Your task to perform on an android device: Go to eBay Image 0: 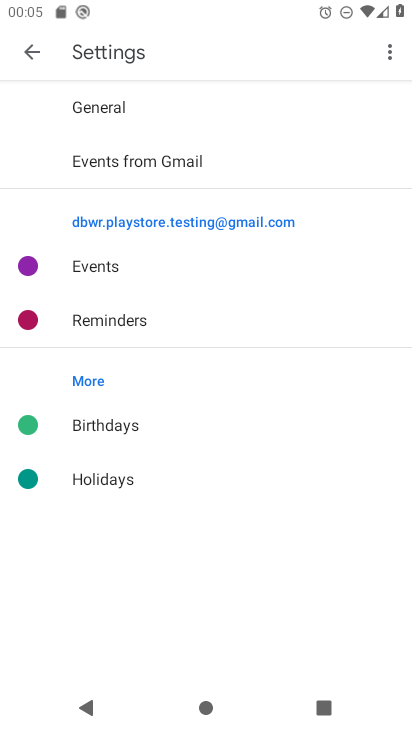
Step 0: press home button
Your task to perform on an android device: Go to eBay Image 1: 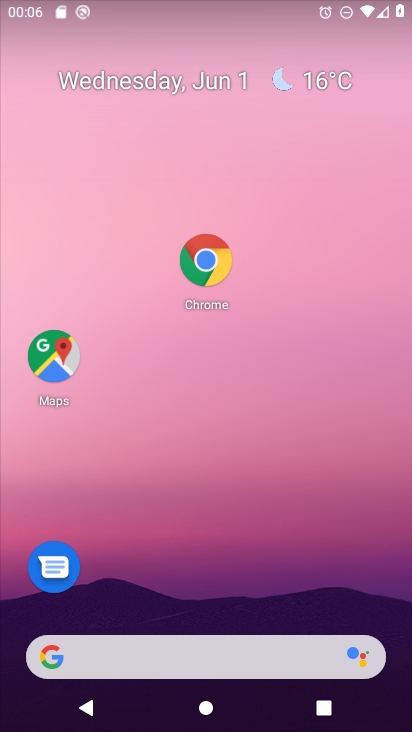
Step 1: click (208, 261)
Your task to perform on an android device: Go to eBay Image 2: 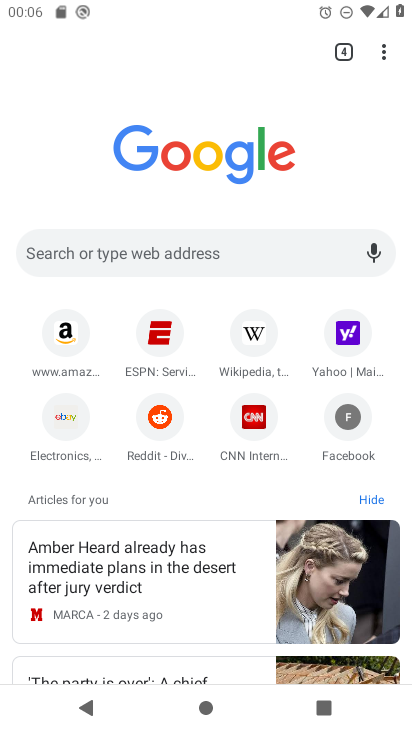
Step 2: click (79, 430)
Your task to perform on an android device: Go to eBay Image 3: 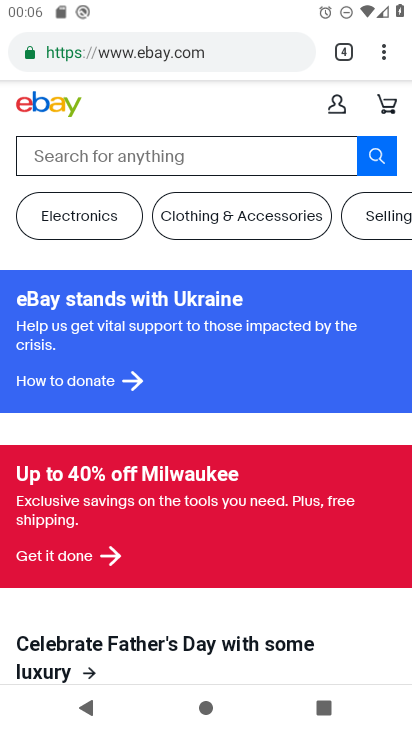
Step 3: task complete